Your task to perform on an android device: toggle show notifications on the lock screen Image 0: 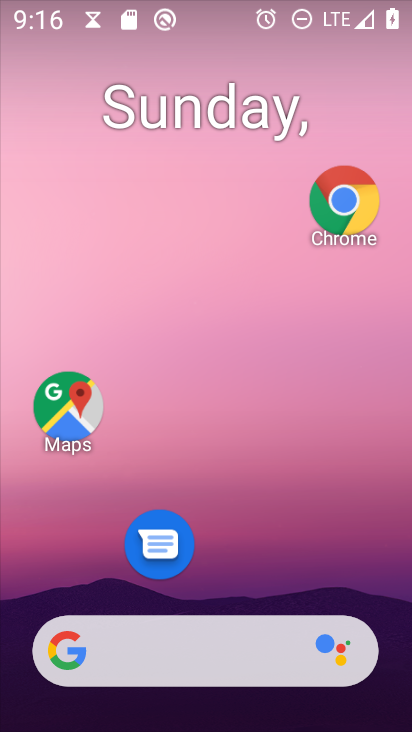
Step 0: drag from (282, 543) to (240, 37)
Your task to perform on an android device: toggle show notifications on the lock screen Image 1: 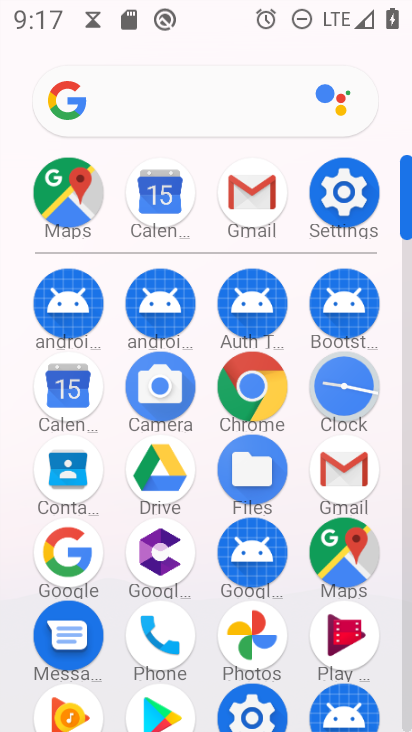
Step 1: click (327, 187)
Your task to perform on an android device: toggle show notifications on the lock screen Image 2: 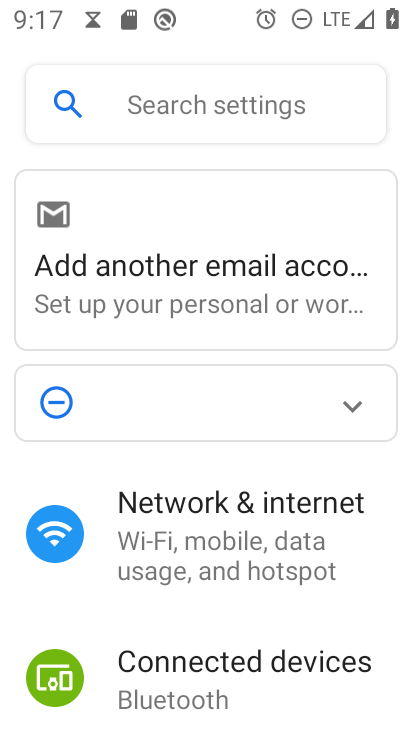
Step 2: drag from (194, 585) to (181, 241)
Your task to perform on an android device: toggle show notifications on the lock screen Image 3: 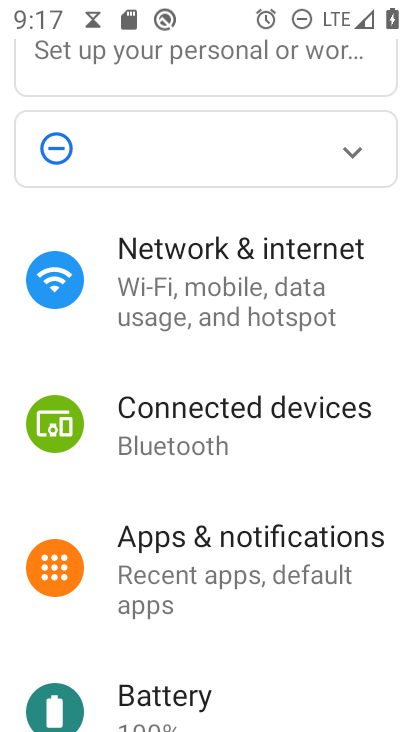
Step 3: click (250, 573)
Your task to perform on an android device: toggle show notifications on the lock screen Image 4: 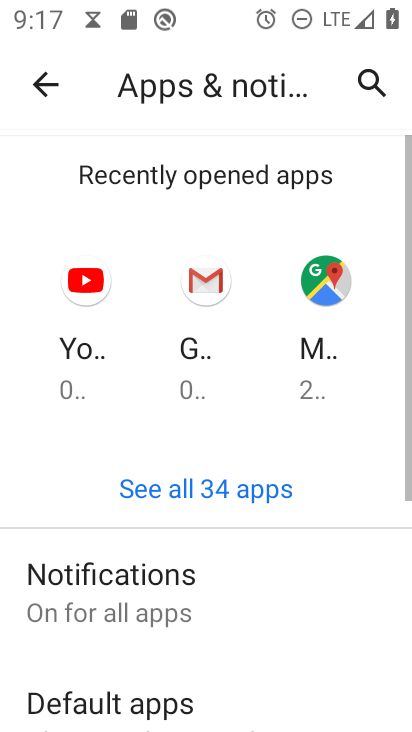
Step 4: click (160, 607)
Your task to perform on an android device: toggle show notifications on the lock screen Image 5: 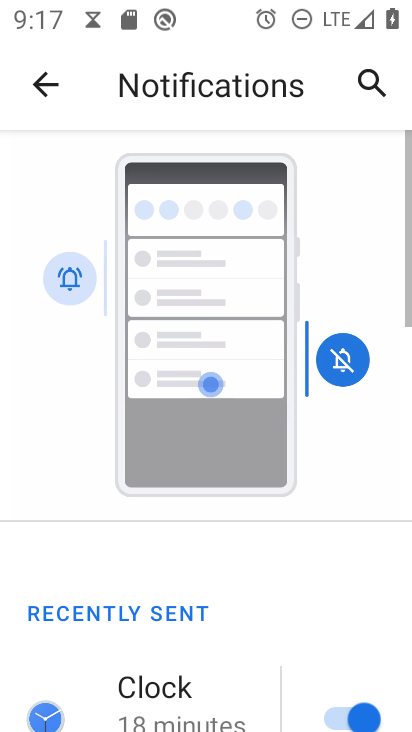
Step 5: drag from (197, 634) to (285, 238)
Your task to perform on an android device: toggle show notifications on the lock screen Image 6: 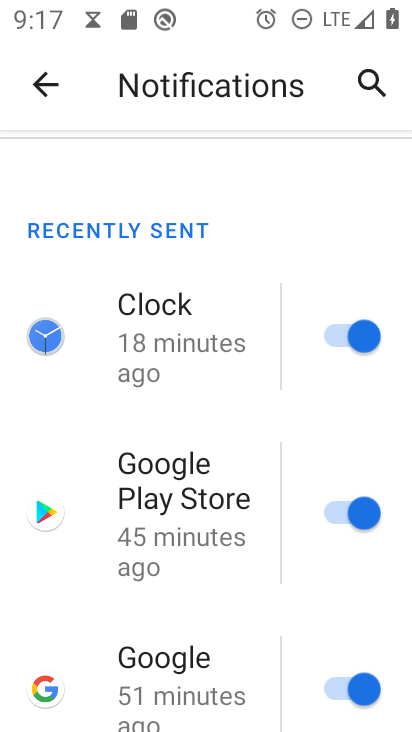
Step 6: drag from (267, 673) to (345, 299)
Your task to perform on an android device: toggle show notifications on the lock screen Image 7: 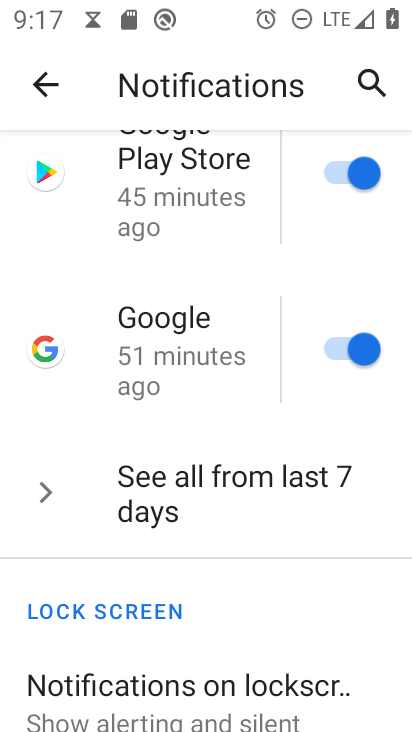
Step 7: drag from (269, 672) to (291, 286)
Your task to perform on an android device: toggle show notifications on the lock screen Image 8: 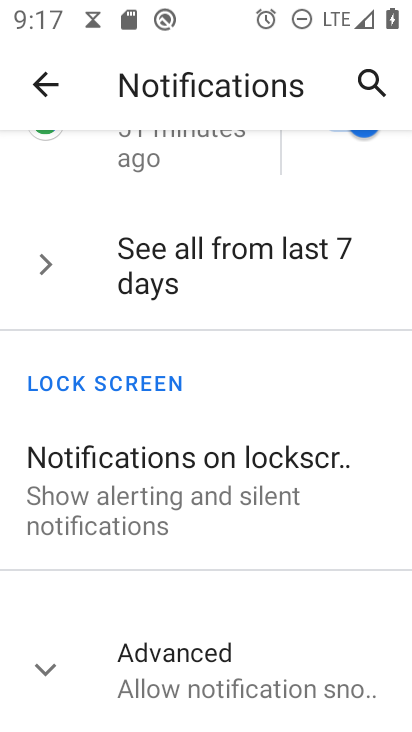
Step 8: click (130, 518)
Your task to perform on an android device: toggle show notifications on the lock screen Image 9: 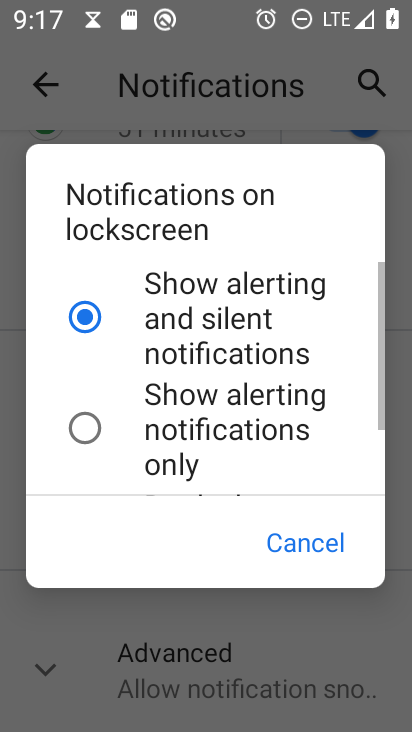
Step 9: click (175, 397)
Your task to perform on an android device: toggle show notifications on the lock screen Image 10: 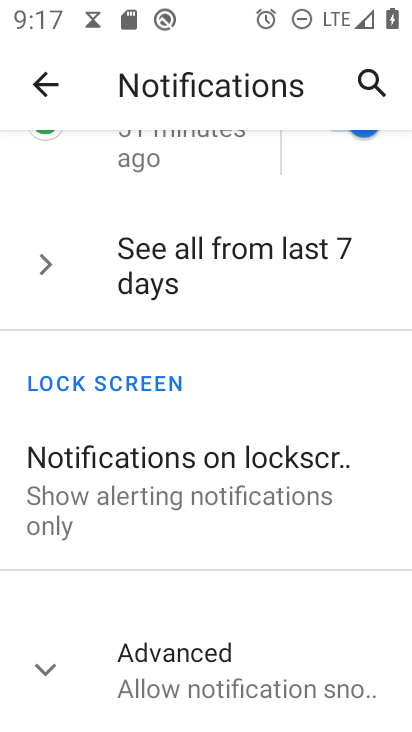
Step 10: task complete